Your task to perform on an android device: change the clock display to digital Image 0: 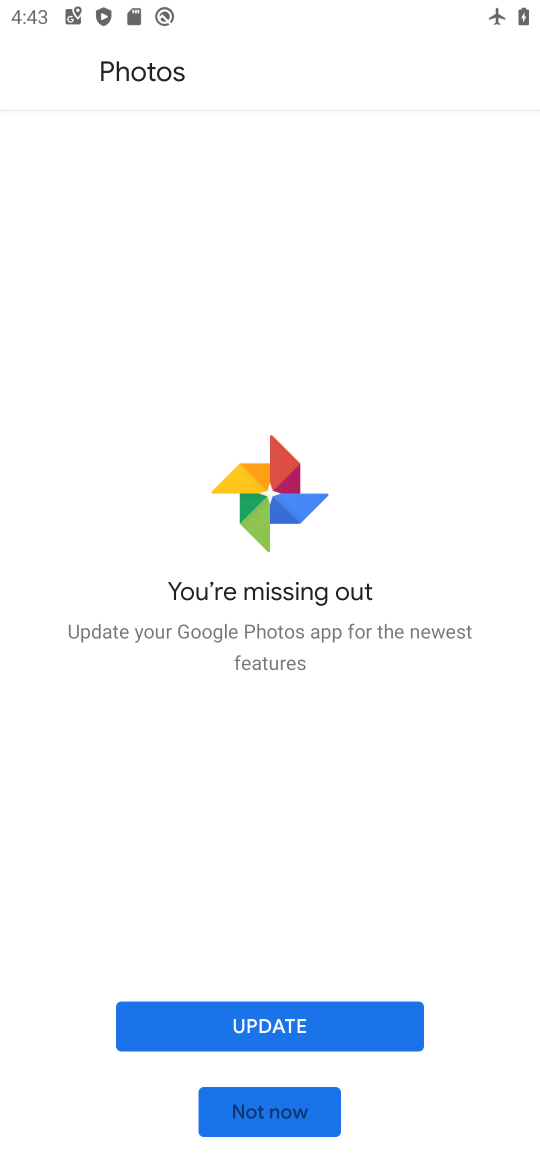
Step 0: press home button
Your task to perform on an android device: change the clock display to digital Image 1: 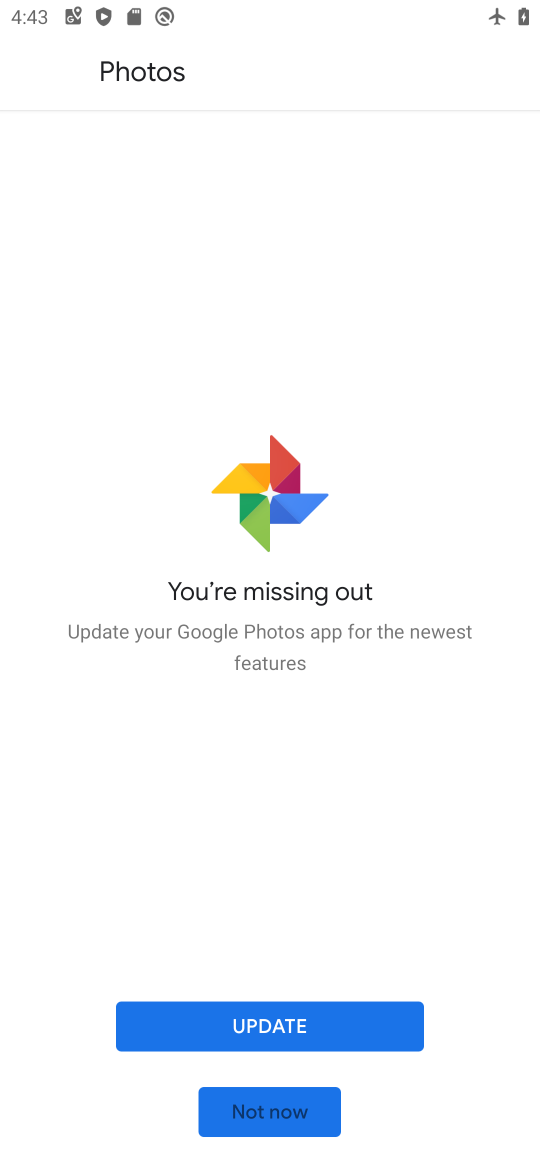
Step 1: press home button
Your task to perform on an android device: change the clock display to digital Image 2: 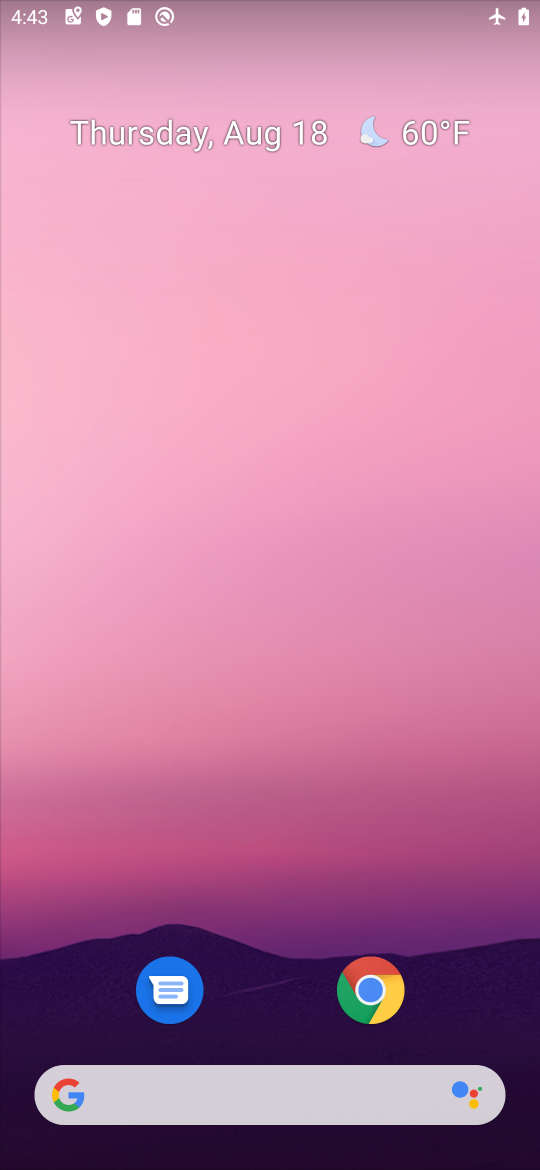
Step 2: drag from (258, 946) to (321, 101)
Your task to perform on an android device: change the clock display to digital Image 3: 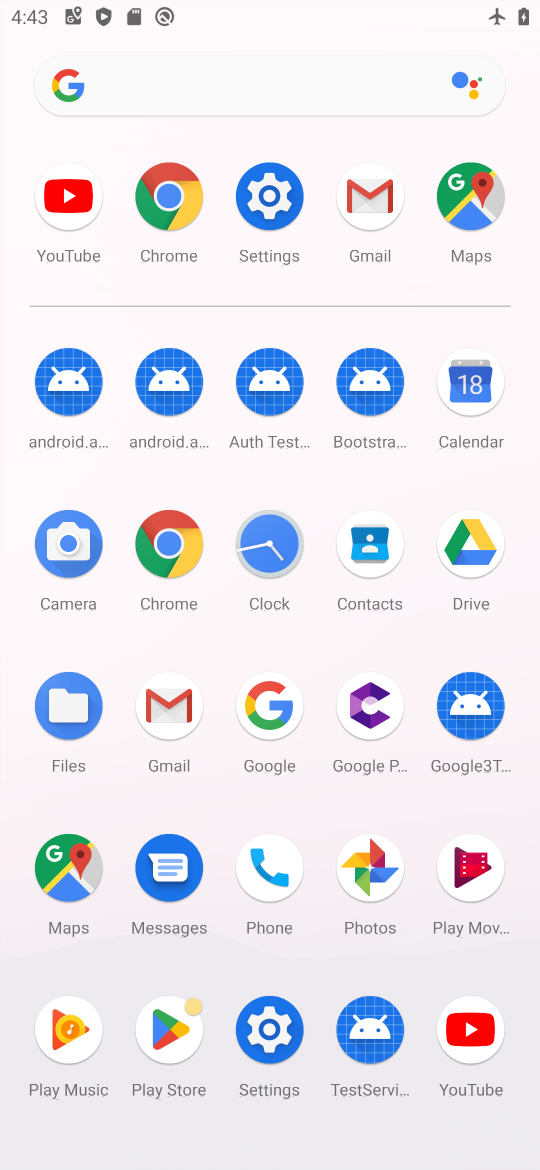
Step 3: click (264, 546)
Your task to perform on an android device: change the clock display to digital Image 4: 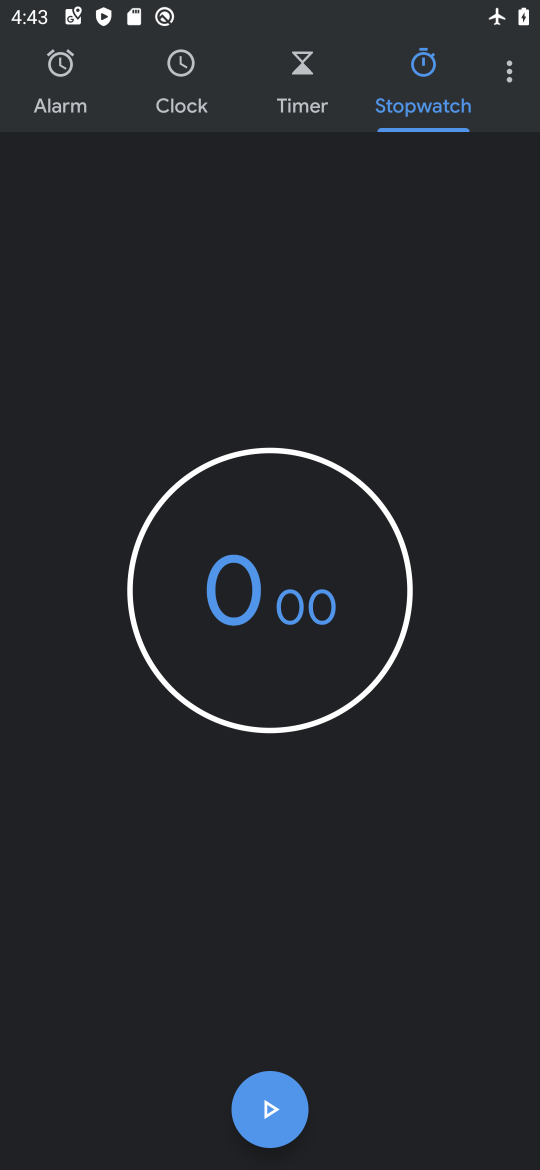
Step 4: click (521, 80)
Your task to perform on an android device: change the clock display to digital Image 5: 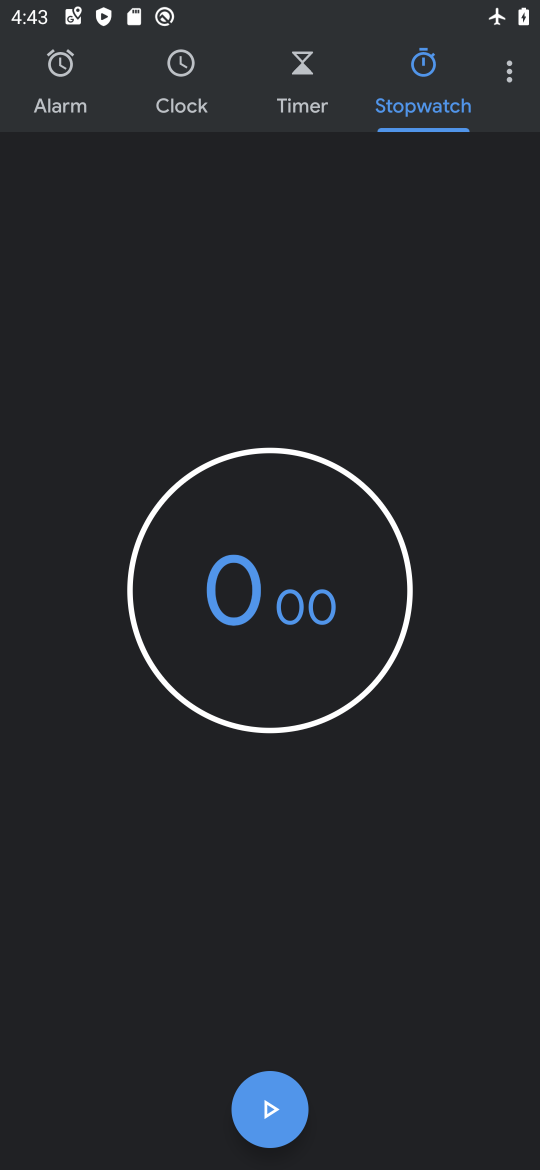
Step 5: click (508, 84)
Your task to perform on an android device: change the clock display to digital Image 6: 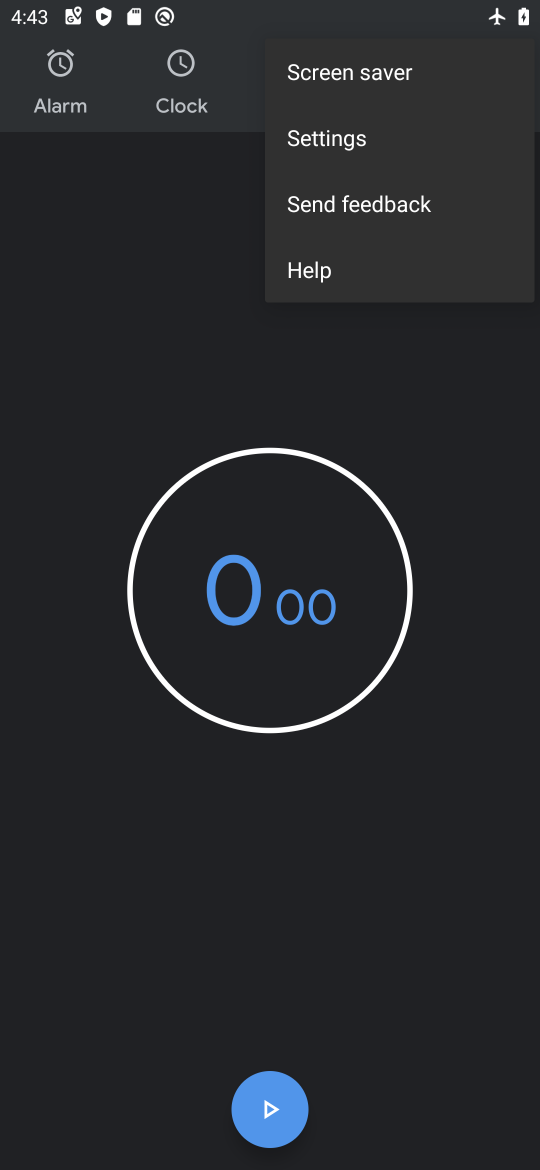
Step 6: click (372, 155)
Your task to perform on an android device: change the clock display to digital Image 7: 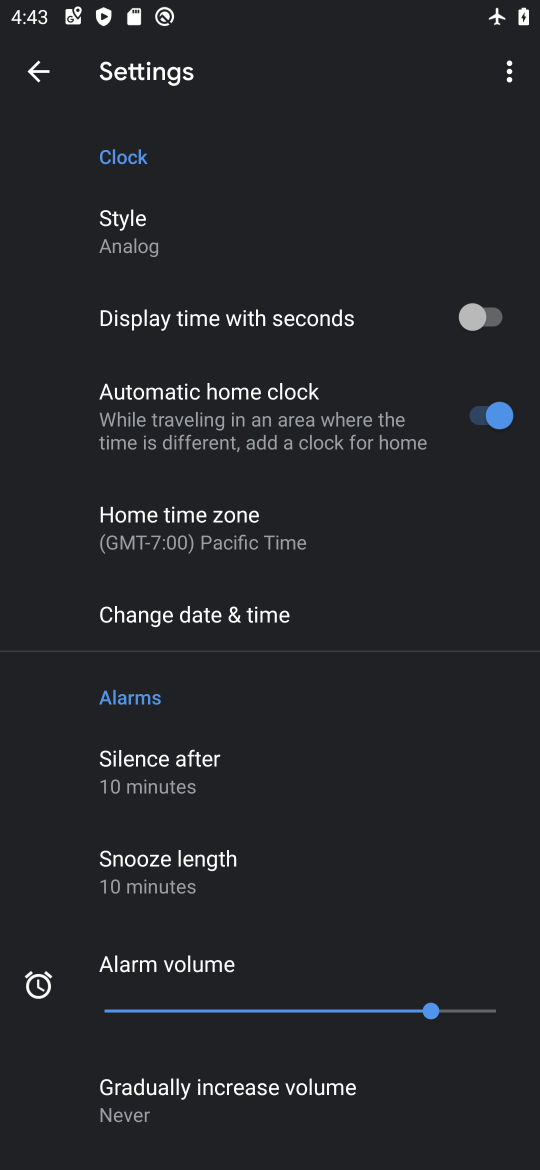
Step 7: click (124, 249)
Your task to perform on an android device: change the clock display to digital Image 8: 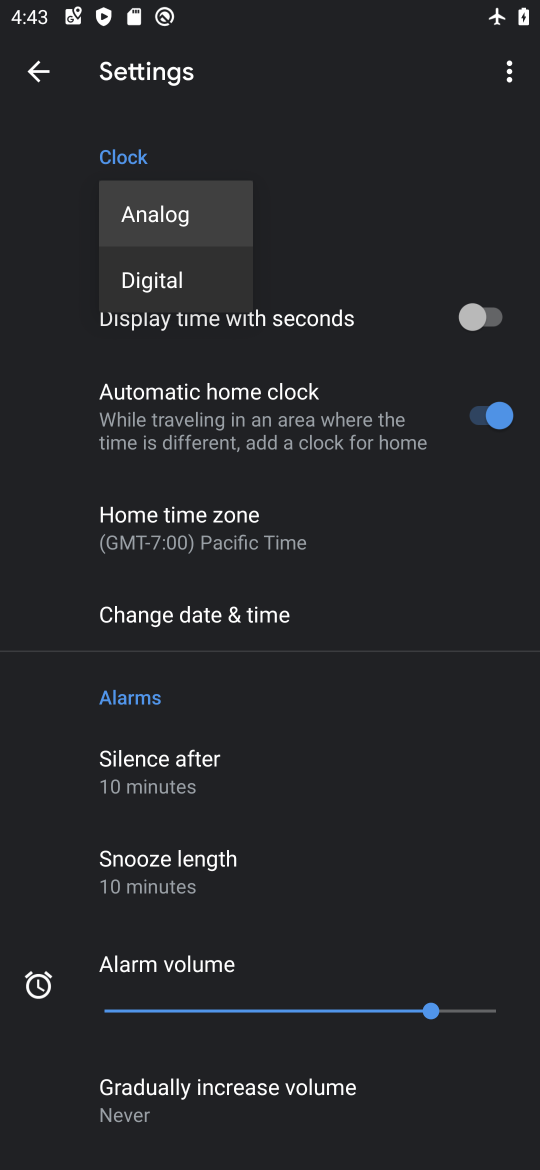
Step 8: click (176, 296)
Your task to perform on an android device: change the clock display to digital Image 9: 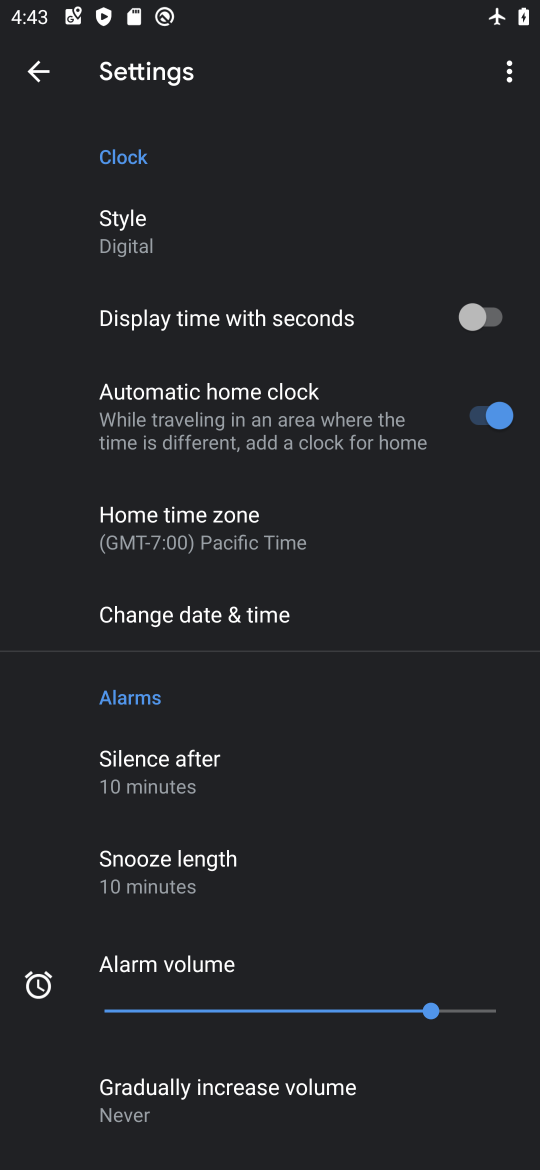
Step 9: task complete